Your task to perform on an android device: toggle airplane mode Image 0: 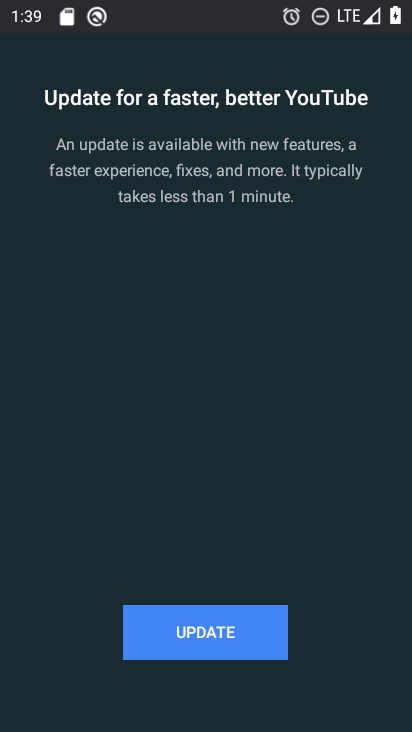
Step 0: press home button
Your task to perform on an android device: toggle airplane mode Image 1: 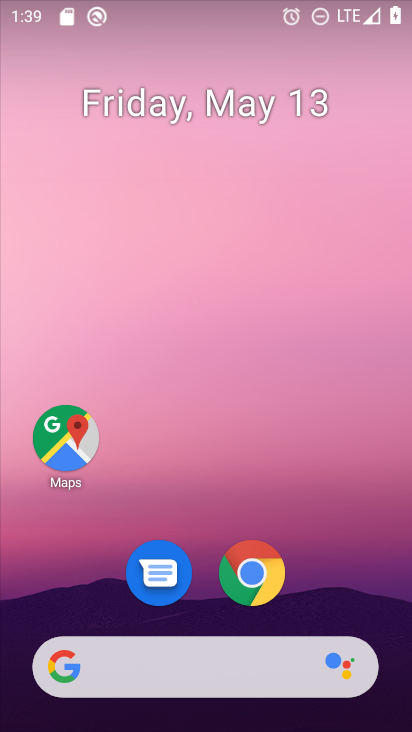
Step 1: click (221, 16)
Your task to perform on an android device: toggle airplane mode Image 2: 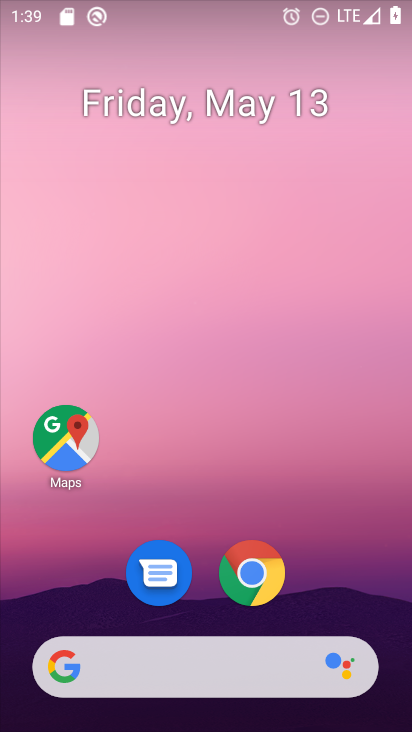
Step 2: drag from (246, 719) to (243, 121)
Your task to perform on an android device: toggle airplane mode Image 3: 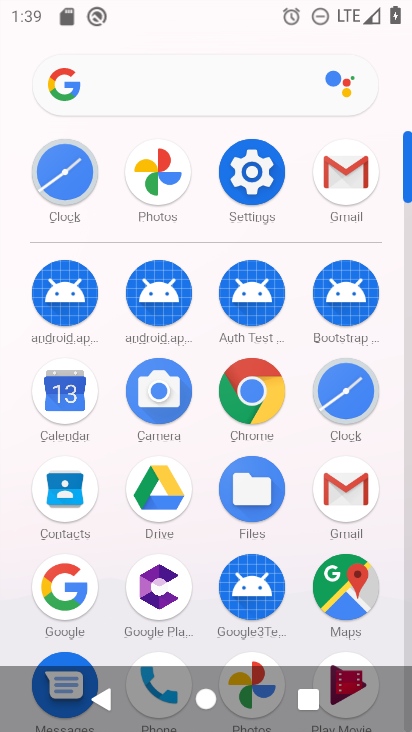
Step 3: click (258, 186)
Your task to perform on an android device: toggle airplane mode Image 4: 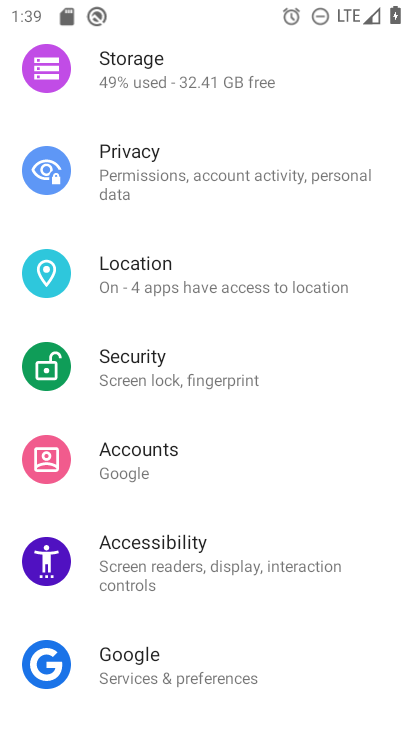
Step 4: drag from (306, 158) to (291, 620)
Your task to perform on an android device: toggle airplane mode Image 5: 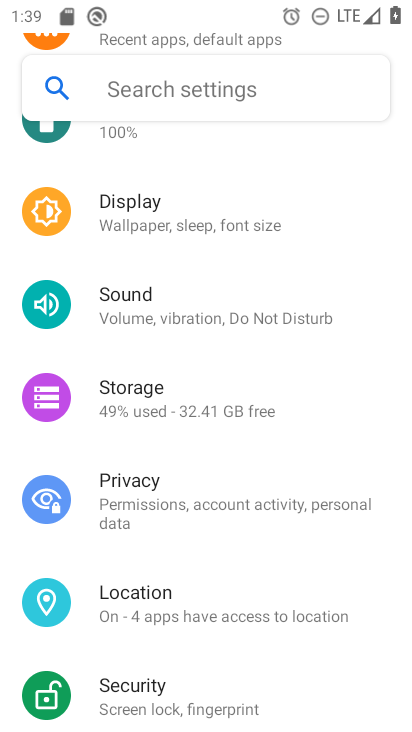
Step 5: drag from (333, 195) to (254, 651)
Your task to perform on an android device: toggle airplane mode Image 6: 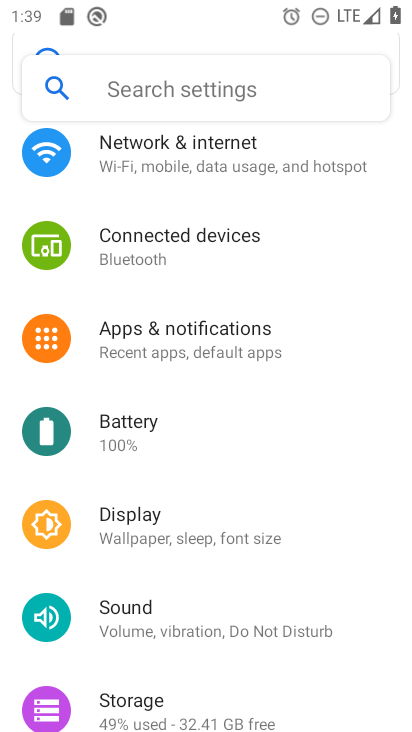
Step 6: drag from (299, 171) to (274, 563)
Your task to perform on an android device: toggle airplane mode Image 7: 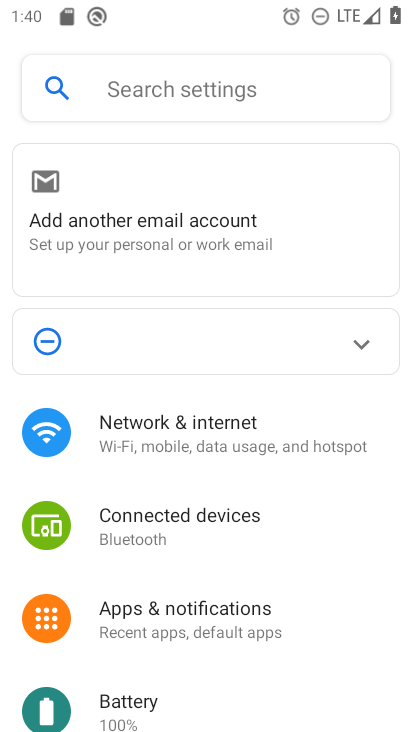
Step 7: click (292, 437)
Your task to perform on an android device: toggle airplane mode Image 8: 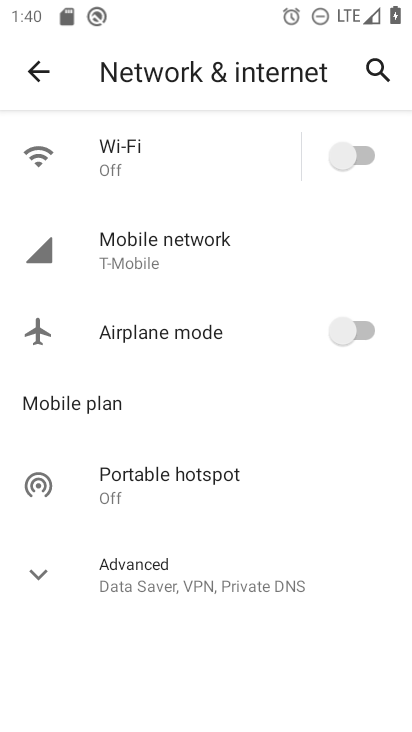
Step 8: click (360, 339)
Your task to perform on an android device: toggle airplane mode Image 9: 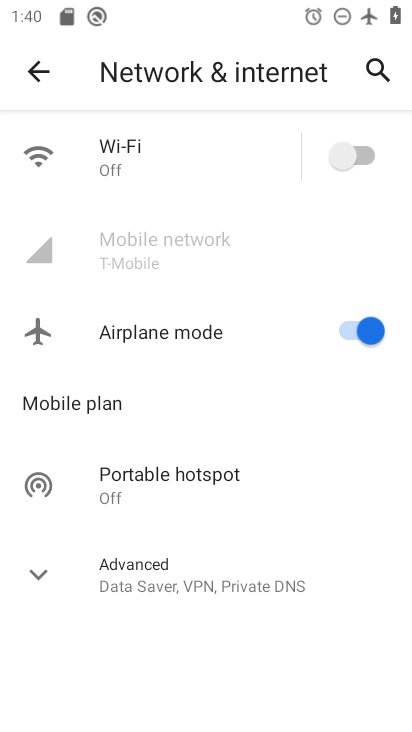
Step 9: task complete